Your task to perform on an android device: open the mobile data screen to see how much data has been used Image 0: 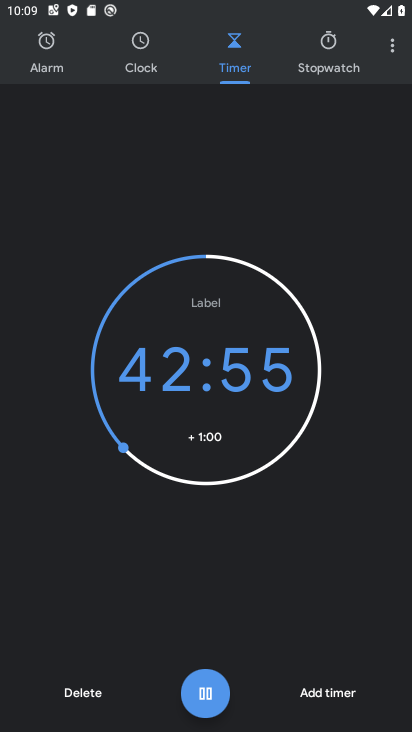
Step 0: drag from (257, 6) to (275, 401)
Your task to perform on an android device: open the mobile data screen to see how much data has been used Image 1: 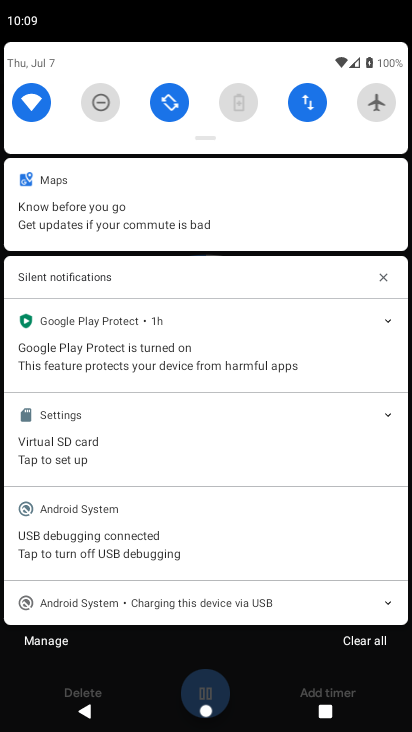
Step 1: press home button
Your task to perform on an android device: open the mobile data screen to see how much data has been used Image 2: 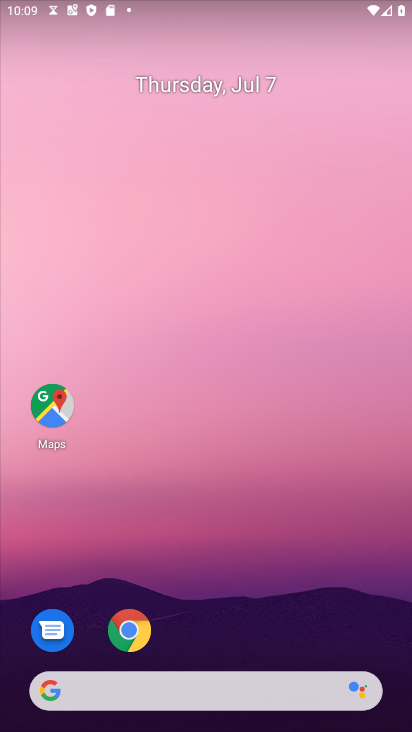
Step 2: drag from (252, 4) to (280, 402)
Your task to perform on an android device: open the mobile data screen to see how much data has been used Image 3: 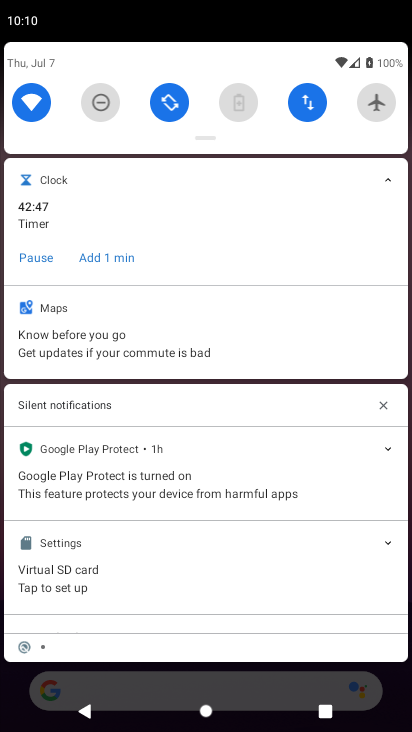
Step 3: drag from (285, 106) to (338, 424)
Your task to perform on an android device: open the mobile data screen to see how much data has been used Image 4: 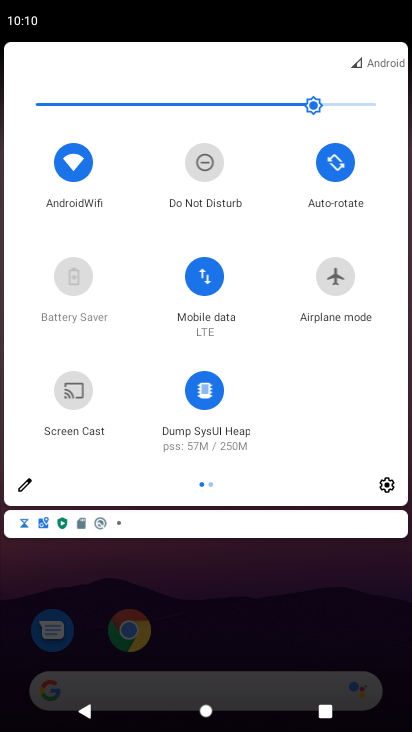
Step 4: press home button
Your task to perform on an android device: open the mobile data screen to see how much data has been used Image 5: 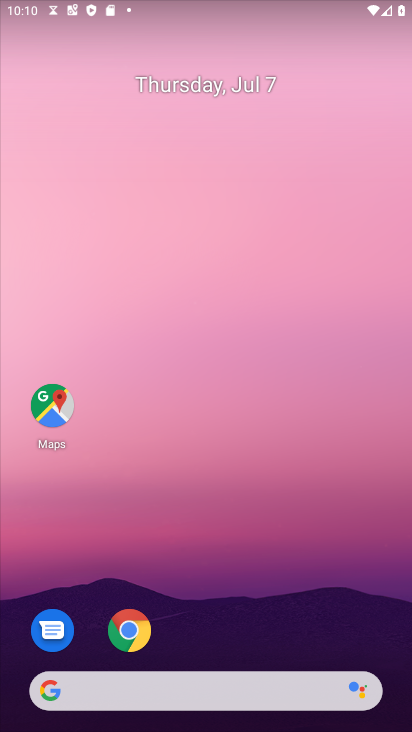
Step 5: drag from (202, 672) to (239, 156)
Your task to perform on an android device: open the mobile data screen to see how much data has been used Image 6: 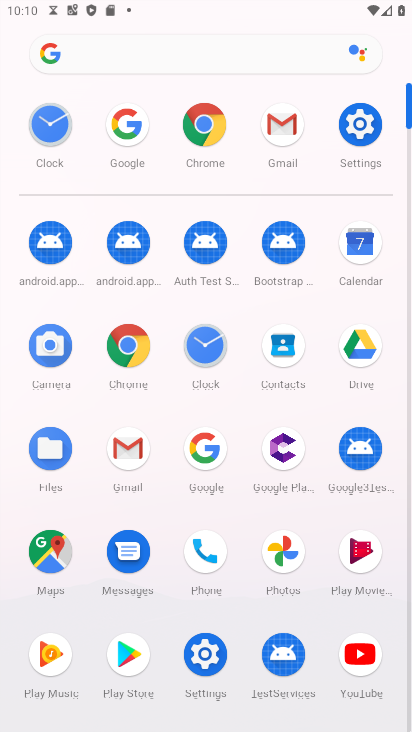
Step 6: click (359, 124)
Your task to perform on an android device: open the mobile data screen to see how much data has been used Image 7: 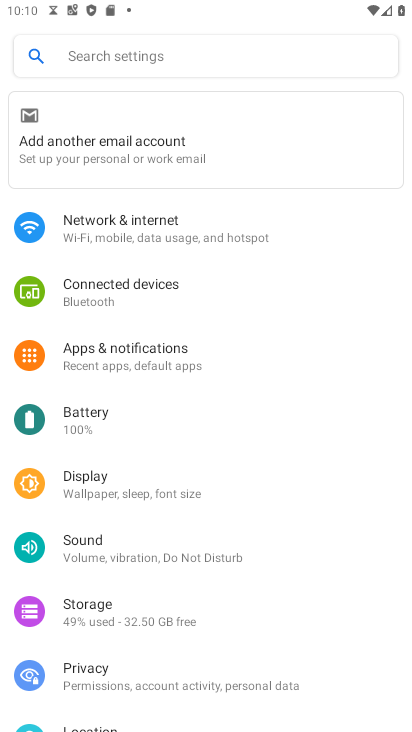
Step 7: click (146, 236)
Your task to perform on an android device: open the mobile data screen to see how much data has been used Image 8: 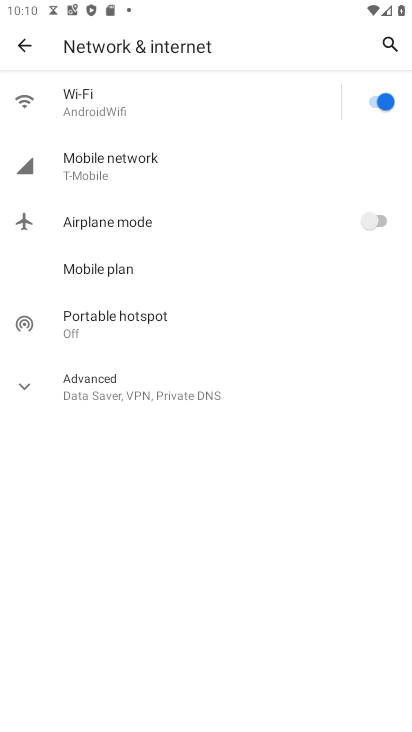
Step 8: click (133, 160)
Your task to perform on an android device: open the mobile data screen to see how much data has been used Image 9: 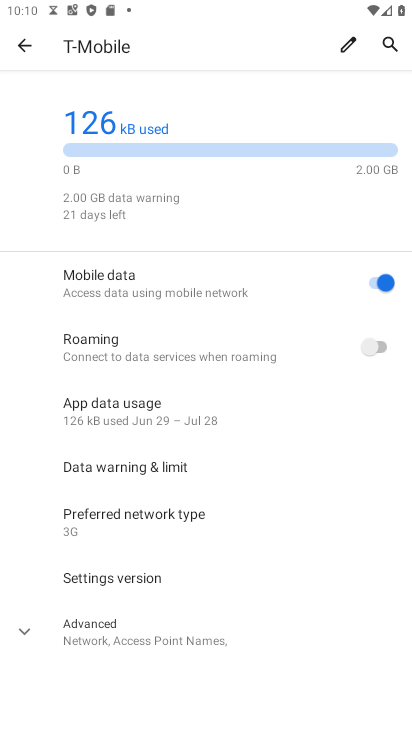
Step 9: task complete